Your task to perform on an android device: change alarm snooze length Image 0: 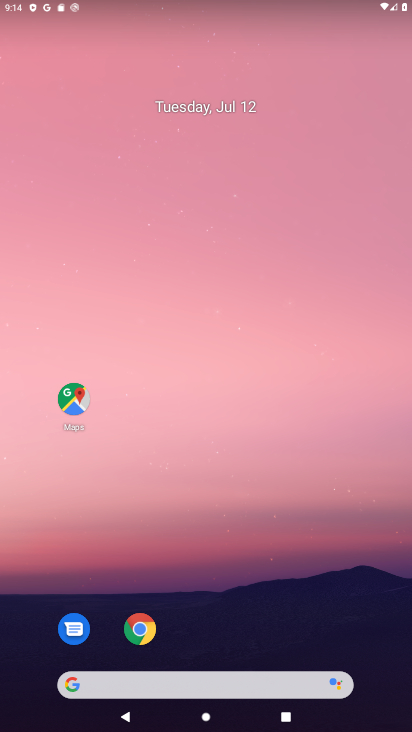
Step 0: drag from (291, 622) to (228, 225)
Your task to perform on an android device: change alarm snooze length Image 1: 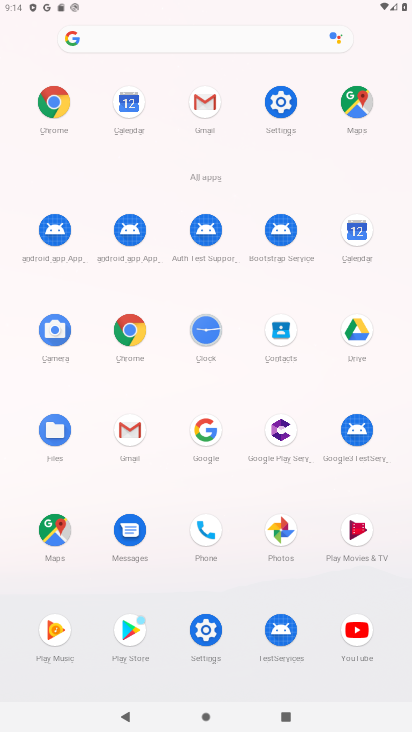
Step 1: click (209, 336)
Your task to perform on an android device: change alarm snooze length Image 2: 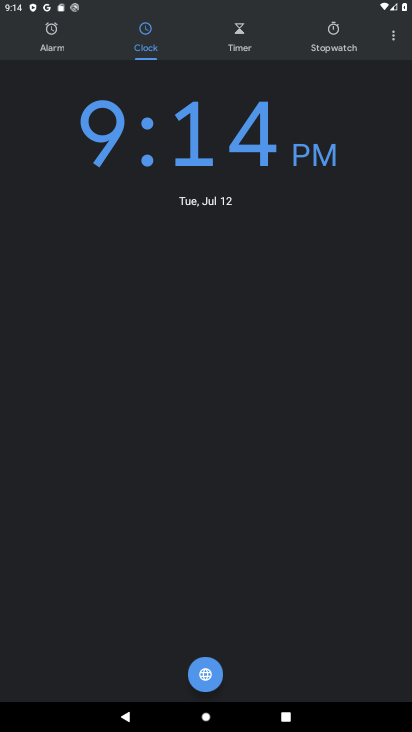
Step 2: click (394, 40)
Your task to perform on an android device: change alarm snooze length Image 3: 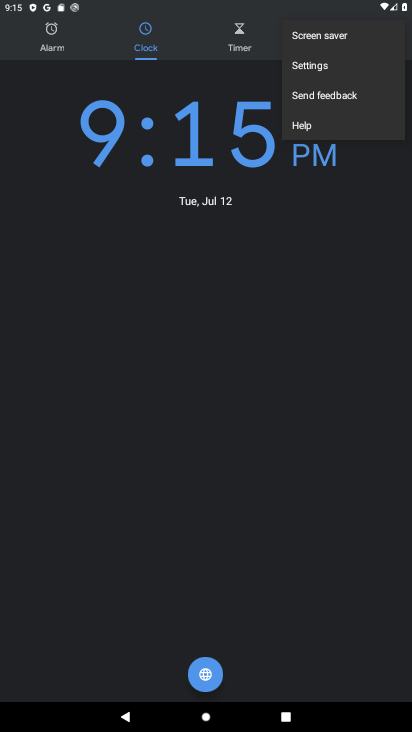
Step 3: click (346, 71)
Your task to perform on an android device: change alarm snooze length Image 4: 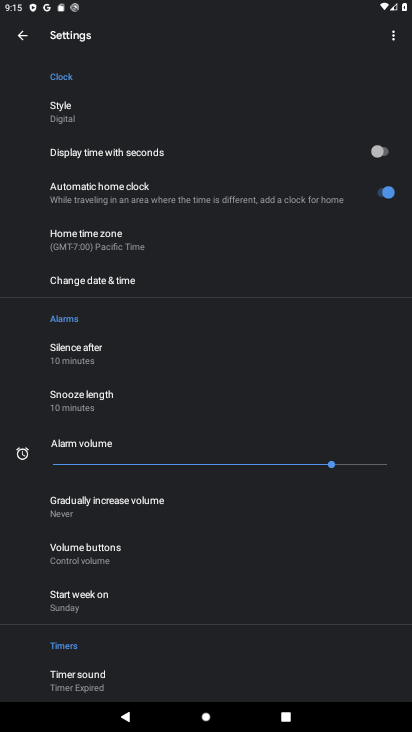
Step 4: click (127, 402)
Your task to perform on an android device: change alarm snooze length Image 5: 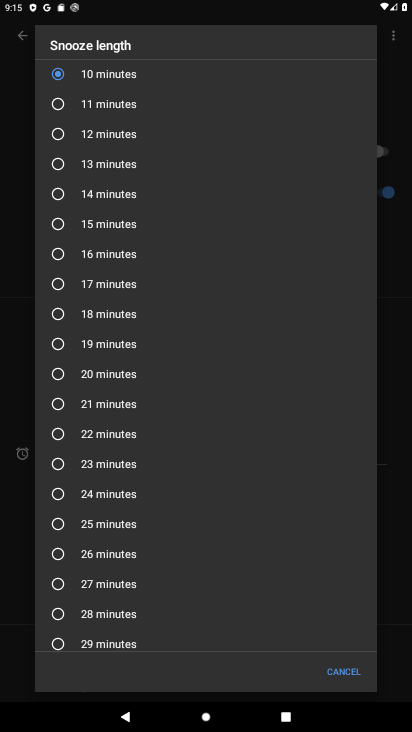
Step 5: click (93, 322)
Your task to perform on an android device: change alarm snooze length Image 6: 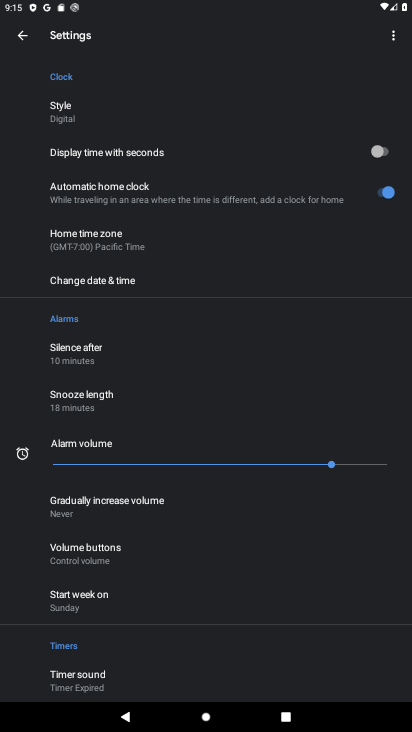
Step 6: task complete